Your task to perform on an android device: see tabs open on other devices in the chrome app Image 0: 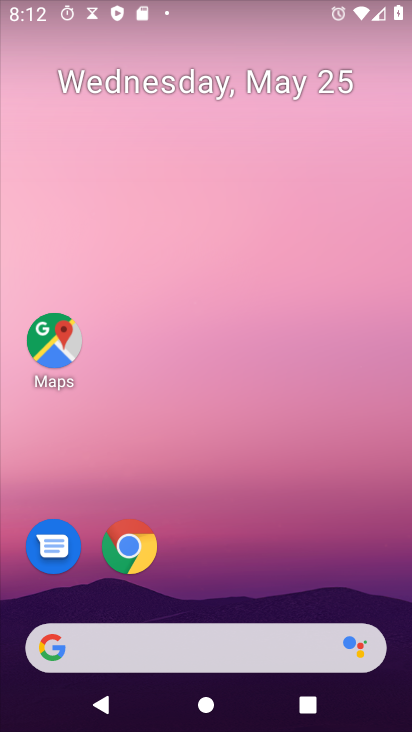
Step 0: click (140, 549)
Your task to perform on an android device: see tabs open on other devices in the chrome app Image 1: 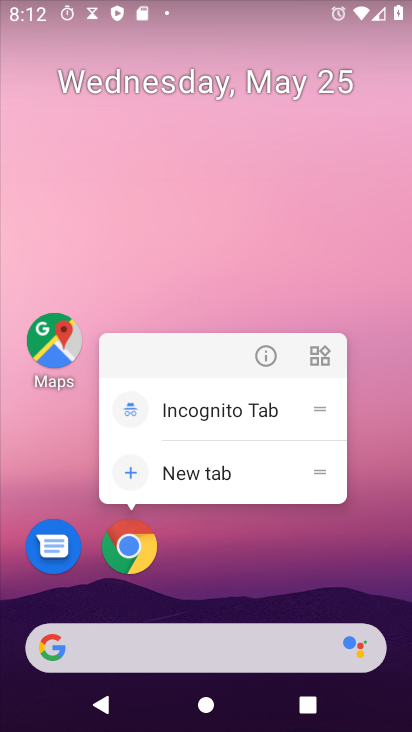
Step 1: click (115, 548)
Your task to perform on an android device: see tabs open on other devices in the chrome app Image 2: 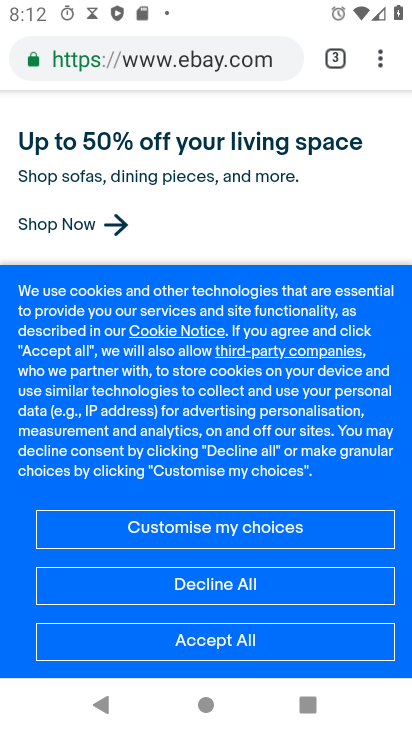
Step 2: click (382, 55)
Your task to perform on an android device: see tabs open on other devices in the chrome app Image 3: 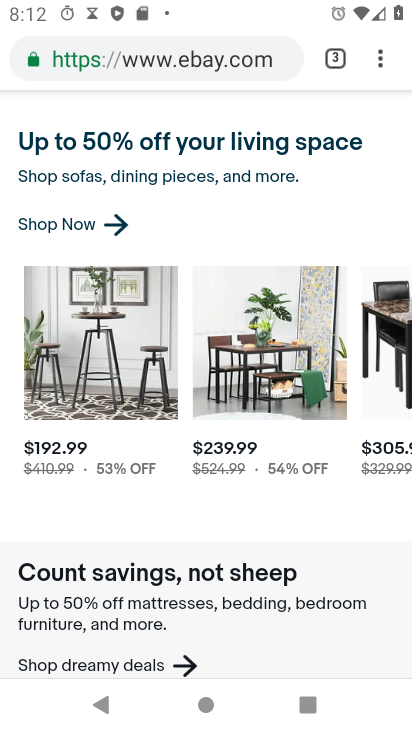
Step 3: click (383, 62)
Your task to perform on an android device: see tabs open on other devices in the chrome app Image 4: 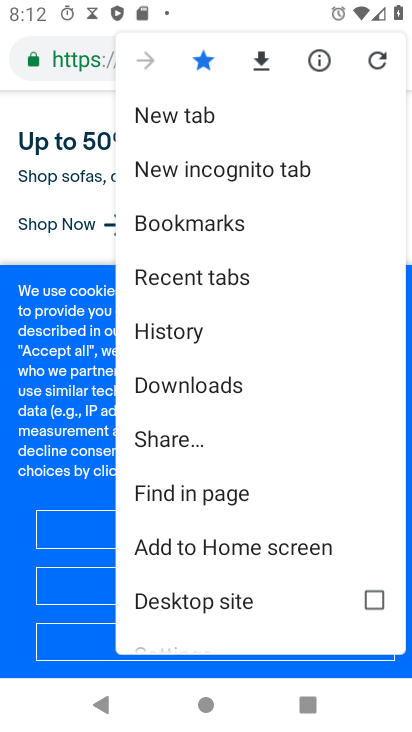
Step 4: click (182, 280)
Your task to perform on an android device: see tabs open on other devices in the chrome app Image 5: 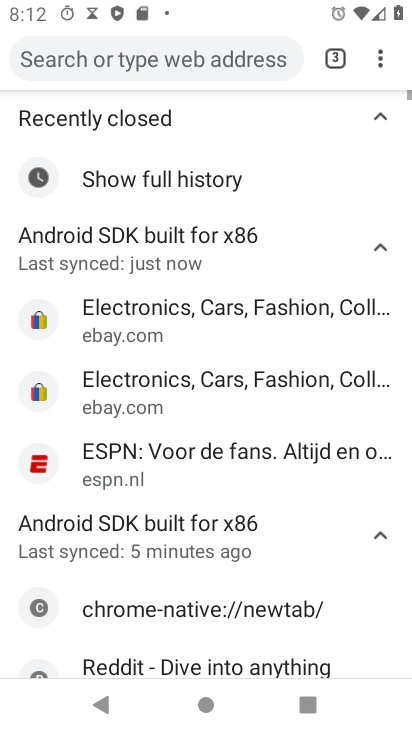
Step 5: task complete